Your task to perform on an android device: Turn on the flashlight Image 0: 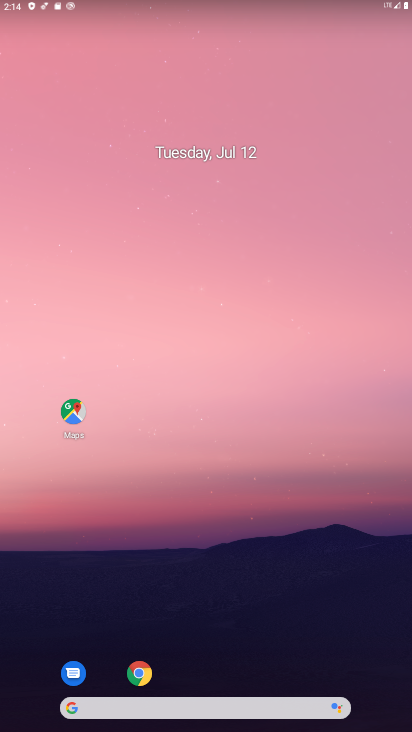
Step 0: drag from (223, 659) to (132, 65)
Your task to perform on an android device: Turn on the flashlight Image 1: 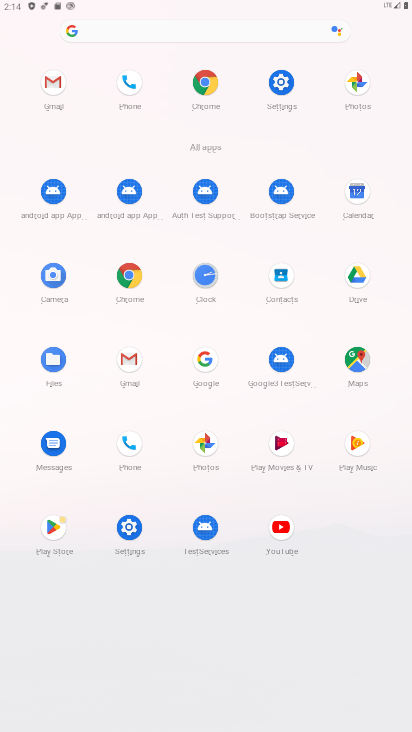
Step 1: click (283, 81)
Your task to perform on an android device: Turn on the flashlight Image 2: 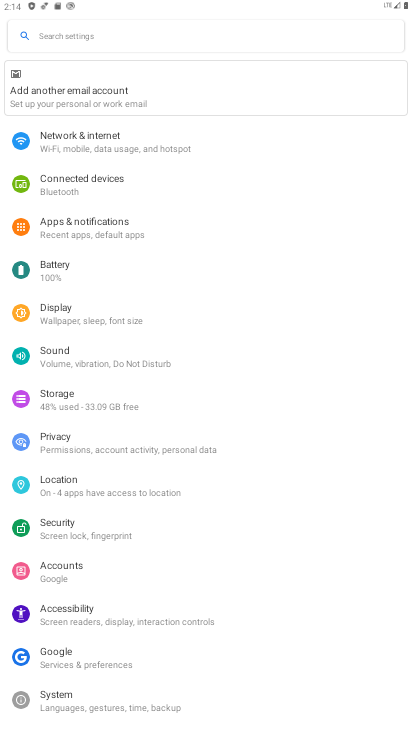
Step 2: task complete